Your task to perform on an android device: Open notification settings Image 0: 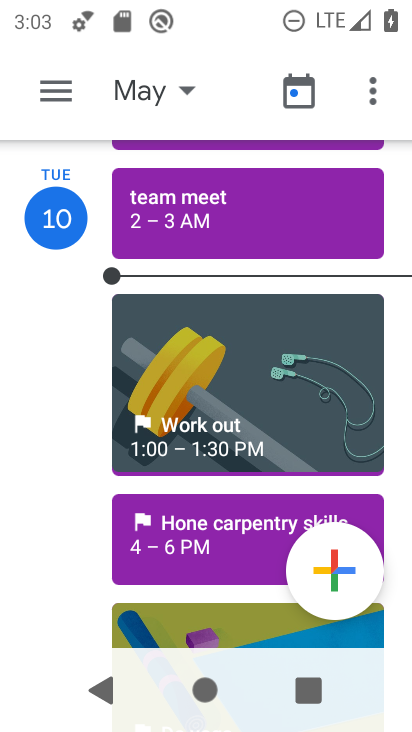
Step 0: press home button
Your task to perform on an android device: Open notification settings Image 1: 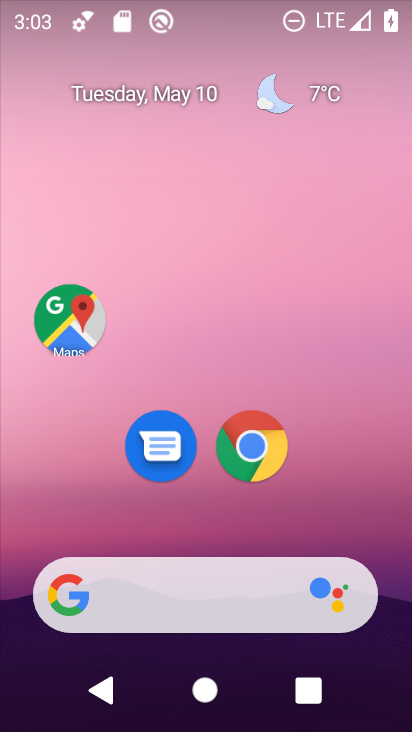
Step 1: drag from (298, 462) to (275, 66)
Your task to perform on an android device: Open notification settings Image 2: 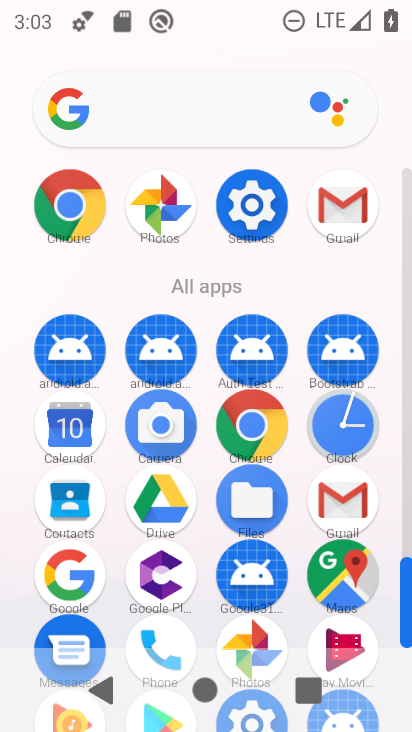
Step 2: click (250, 200)
Your task to perform on an android device: Open notification settings Image 3: 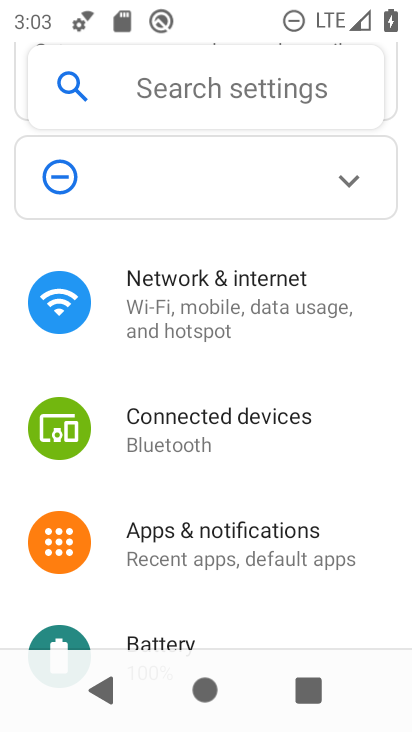
Step 3: click (218, 536)
Your task to perform on an android device: Open notification settings Image 4: 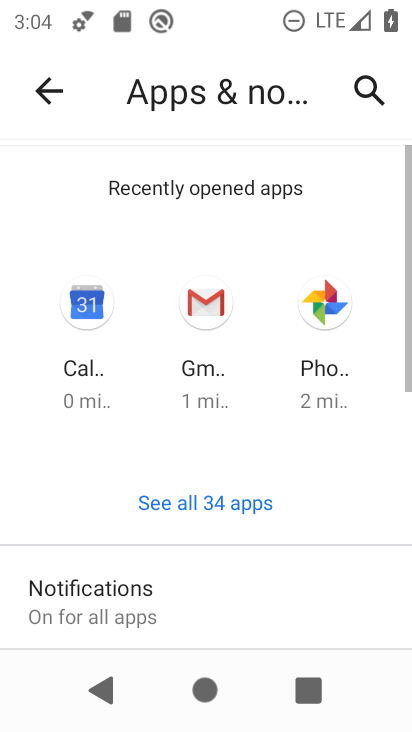
Step 4: task complete